Your task to perform on an android device: Go to accessibility settings Image 0: 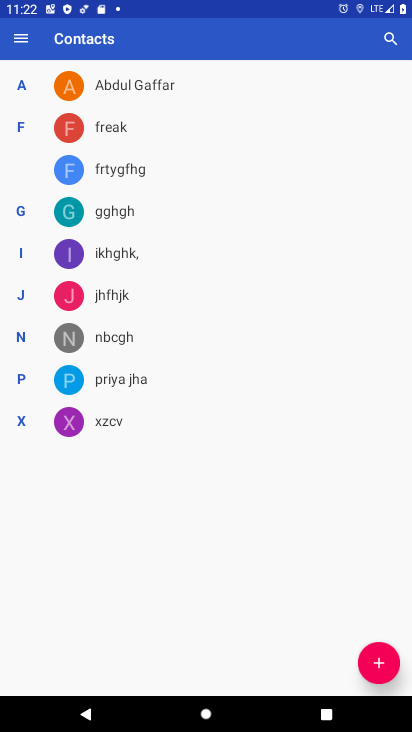
Step 0: press home button
Your task to perform on an android device: Go to accessibility settings Image 1: 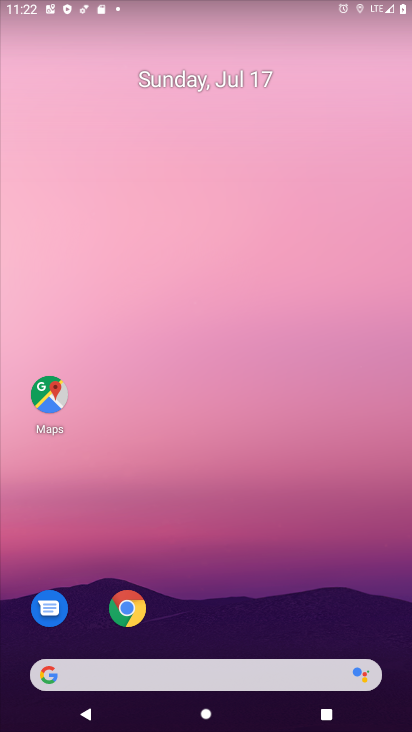
Step 1: drag from (186, 649) to (179, 68)
Your task to perform on an android device: Go to accessibility settings Image 2: 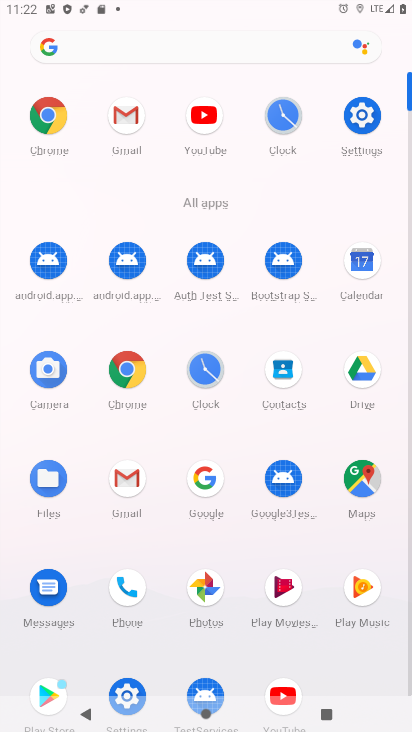
Step 2: click (365, 105)
Your task to perform on an android device: Go to accessibility settings Image 3: 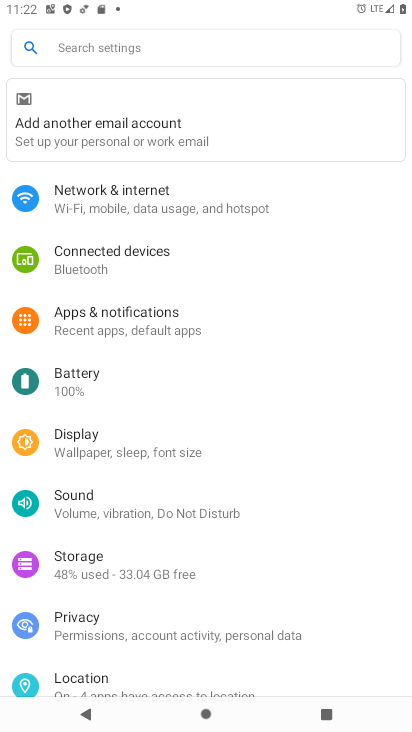
Step 3: drag from (109, 502) to (126, 0)
Your task to perform on an android device: Go to accessibility settings Image 4: 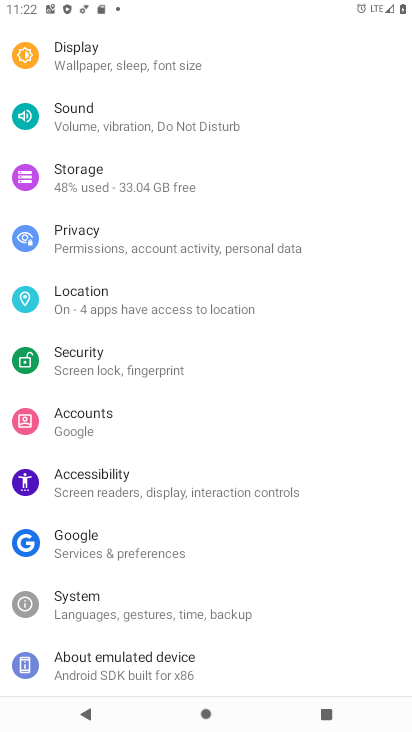
Step 4: click (85, 484)
Your task to perform on an android device: Go to accessibility settings Image 5: 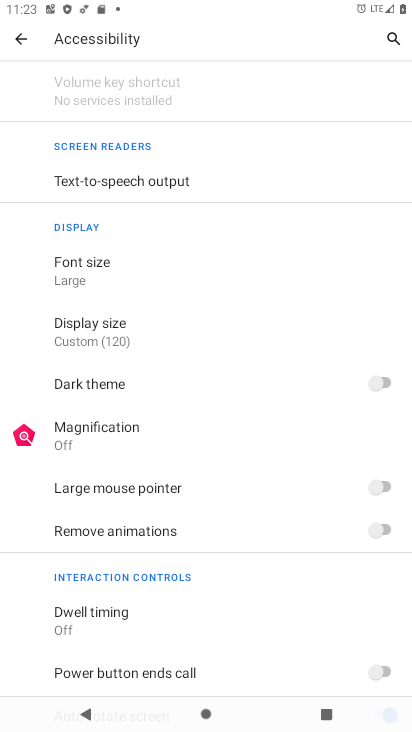
Step 5: task complete